Your task to perform on an android device: Is it going to rain today? Image 0: 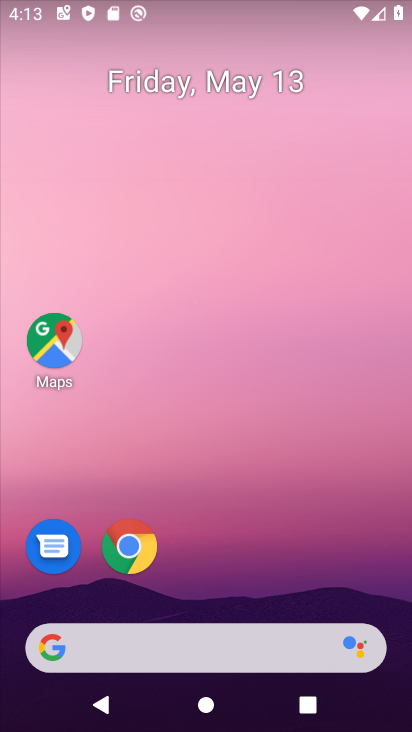
Step 0: click (208, 657)
Your task to perform on an android device: Is it going to rain today? Image 1: 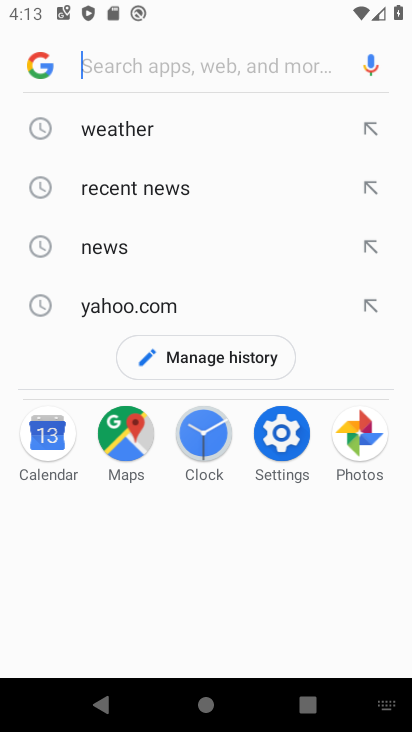
Step 1: click (123, 136)
Your task to perform on an android device: Is it going to rain today? Image 2: 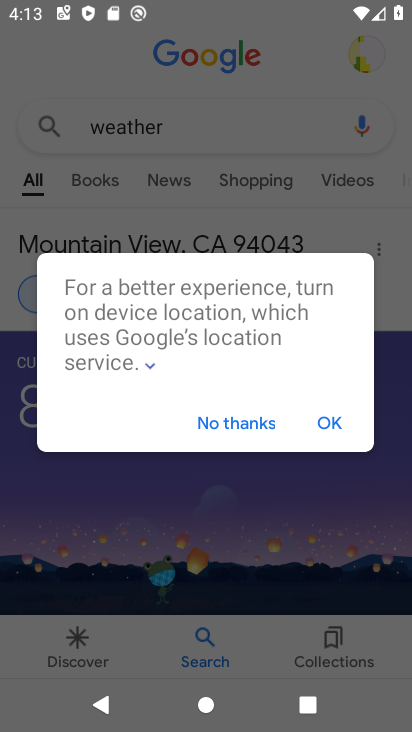
Step 2: click (238, 426)
Your task to perform on an android device: Is it going to rain today? Image 3: 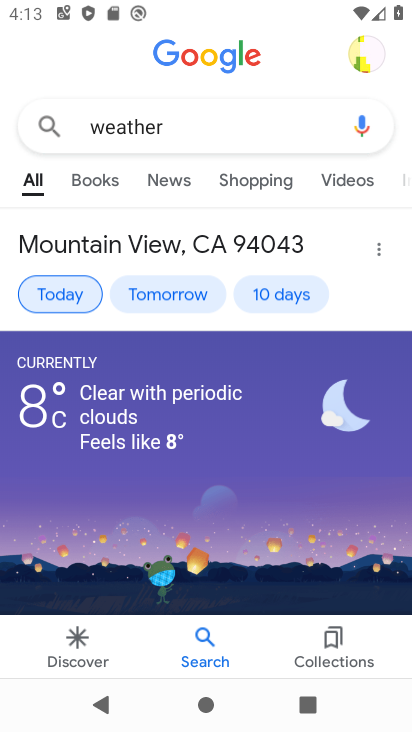
Step 3: task complete